Your task to perform on an android device: Open accessibility settings Image 0: 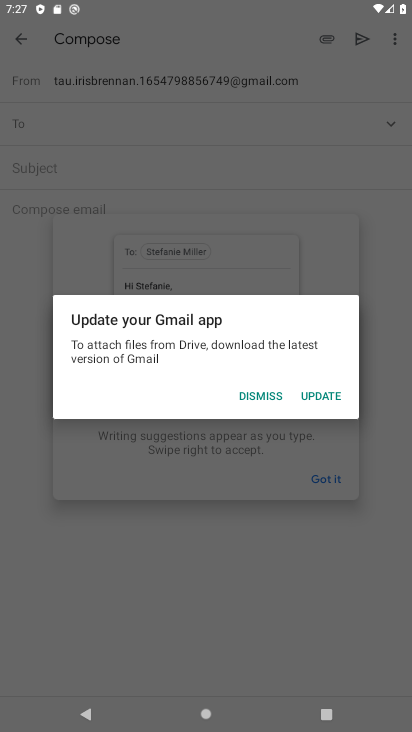
Step 0: click (270, 405)
Your task to perform on an android device: Open accessibility settings Image 1: 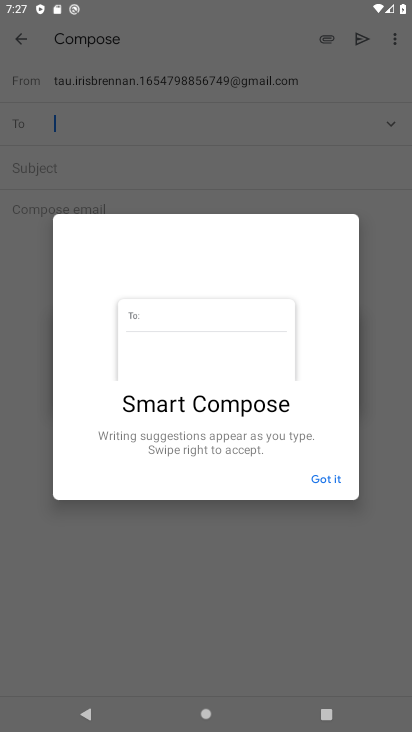
Step 1: click (322, 470)
Your task to perform on an android device: Open accessibility settings Image 2: 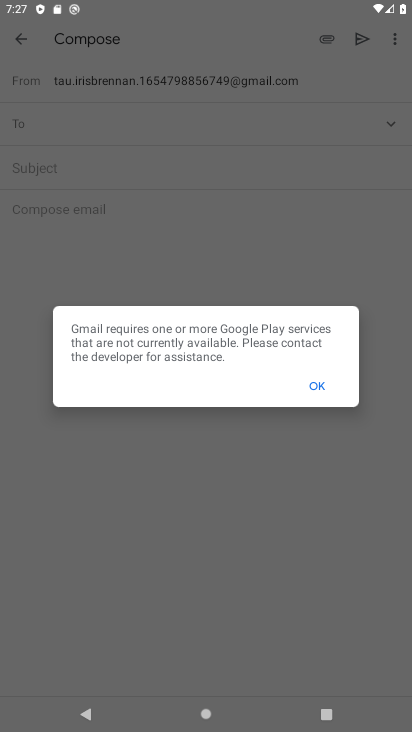
Step 2: click (333, 391)
Your task to perform on an android device: Open accessibility settings Image 3: 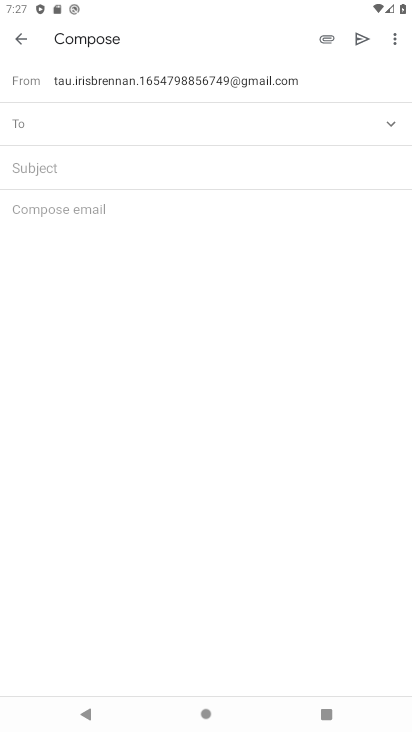
Step 3: press home button
Your task to perform on an android device: Open accessibility settings Image 4: 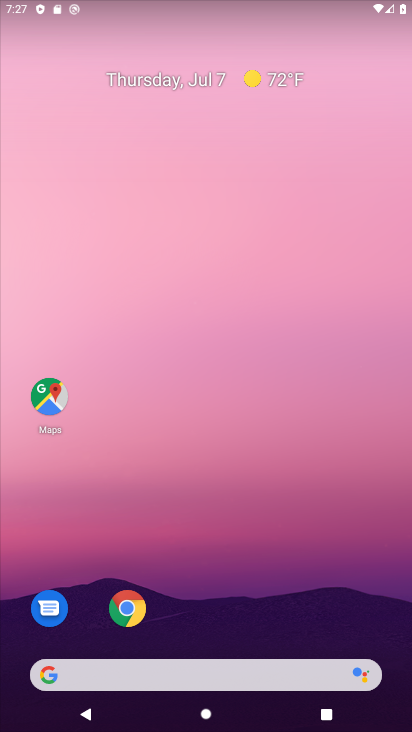
Step 4: drag from (397, 700) to (251, 52)
Your task to perform on an android device: Open accessibility settings Image 5: 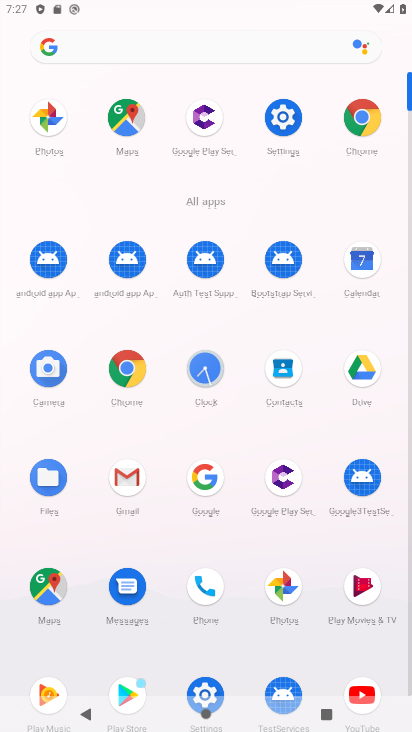
Step 5: click (285, 115)
Your task to perform on an android device: Open accessibility settings Image 6: 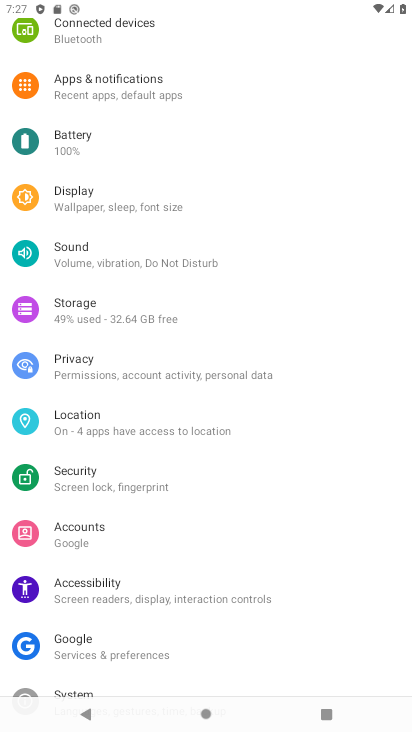
Step 6: click (83, 588)
Your task to perform on an android device: Open accessibility settings Image 7: 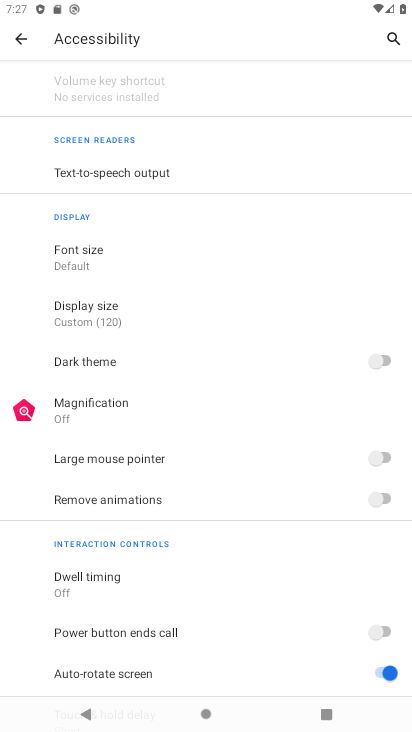
Step 7: task complete